Your task to perform on an android device: What's on my calendar tomorrow? Image 0: 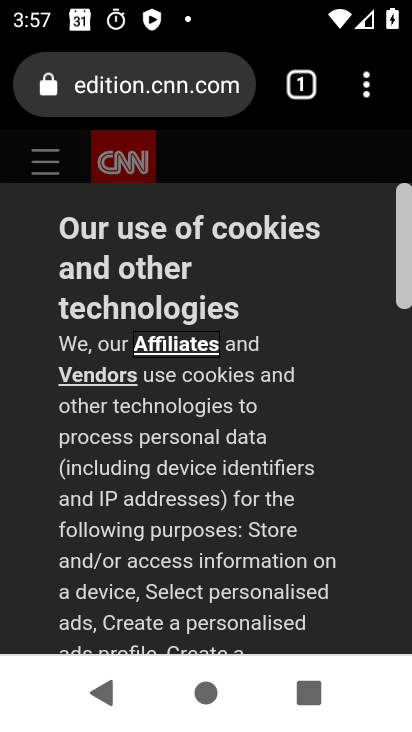
Step 0: press home button
Your task to perform on an android device: What's on my calendar tomorrow? Image 1: 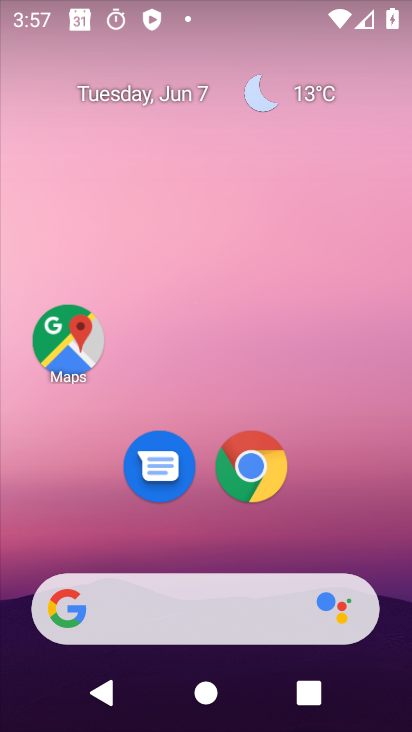
Step 1: drag from (396, 541) to (308, 178)
Your task to perform on an android device: What's on my calendar tomorrow? Image 2: 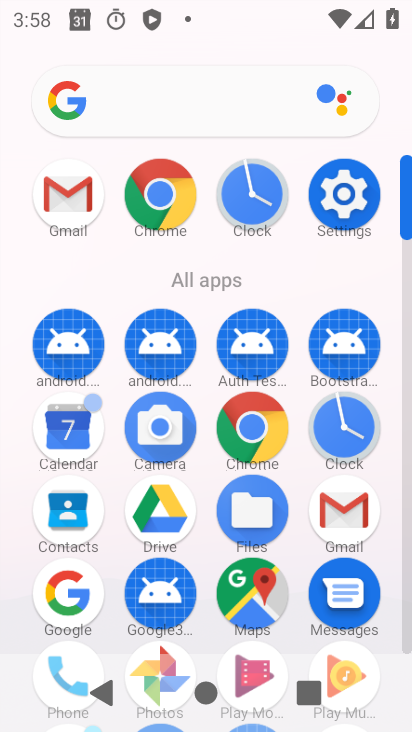
Step 2: click (75, 423)
Your task to perform on an android device: What's on my calendar tomorrow? Image 3: 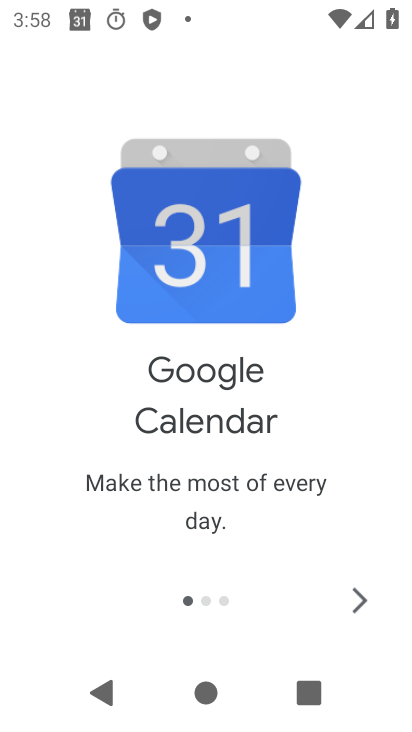
Step 3: click (360, 606)
Your task to perform on an android device: What's on my calendar tomorrow? Image 4: 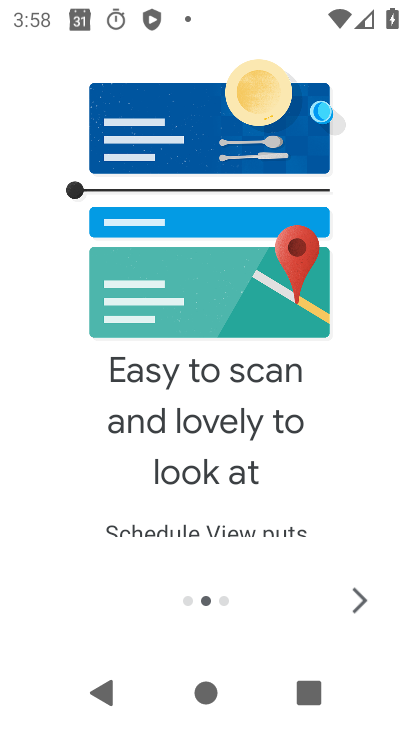
Step 4: click (360, 606)
Your task to perform on an android device: What's on my calendar tomorrow? Image 5: 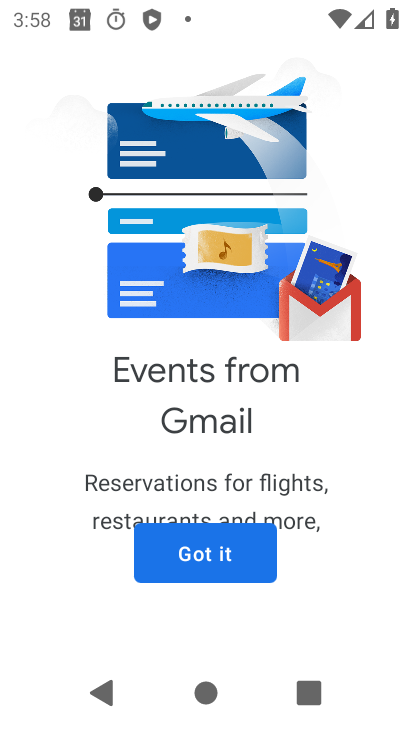
Step 5: click (253, 577)
Your task to perform on an android device: What's on my calendar tomorrow? Image 6: 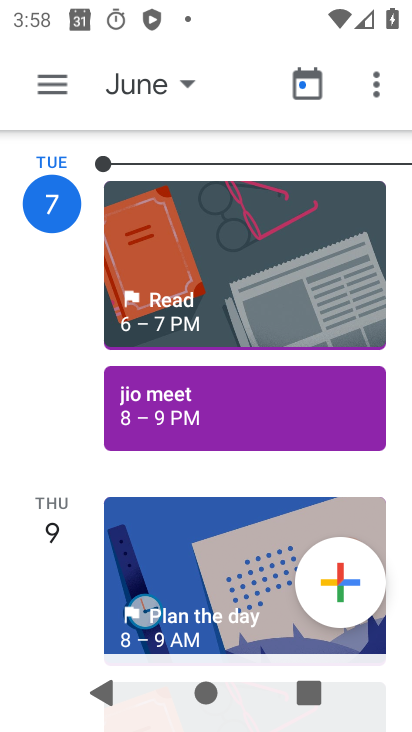
Step 6: click (205, 74)
Your task to perform on an android device: What's on my calendar tomorrow? Image 7: 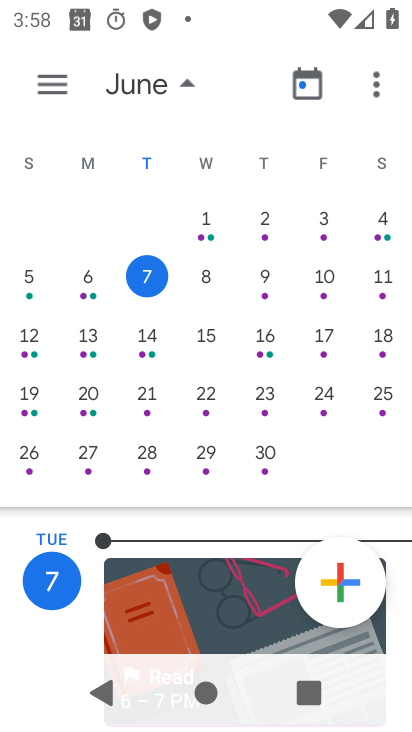
Step 7: click (214, 285)
Your task to perform on an android device: What's on my calendar tomorrow? Image 8: 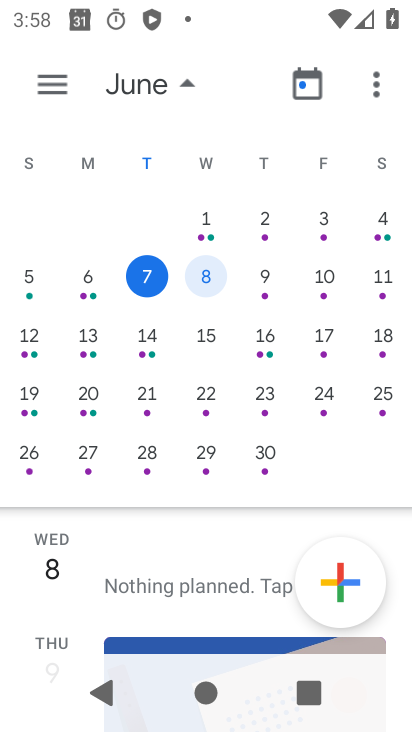
Step 8: click (163, 90)
Your task to perform on an android device: What's on my calendar tomorrow? Image 9: 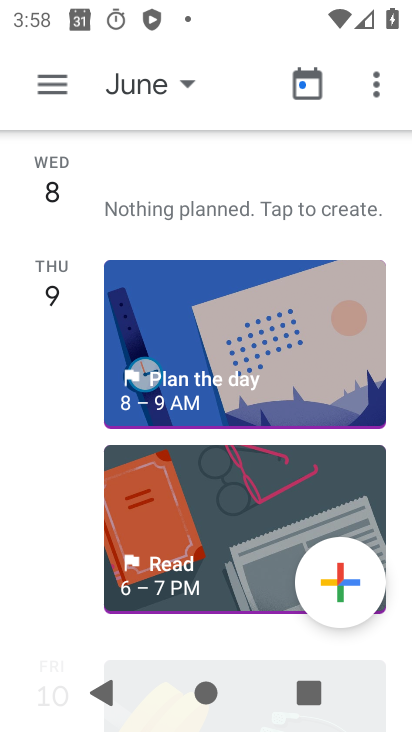
Step 9: task complete